Your task to perform on an android device: Show me popular videos on Youtube Image 0: 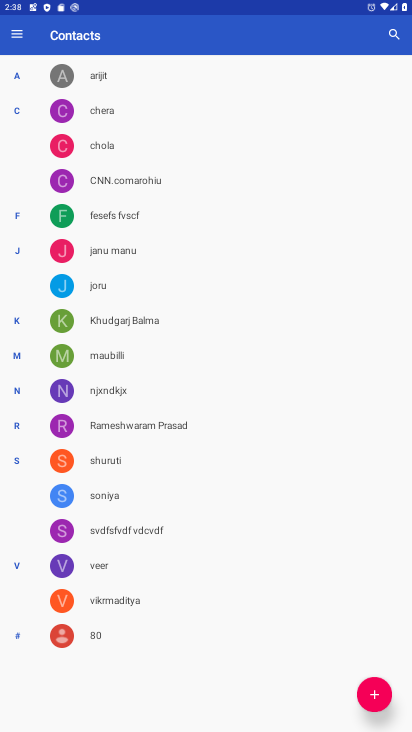
Step 0: press home button
Your task to perform on an android device: Show me popular videos on Youtube Image 1: 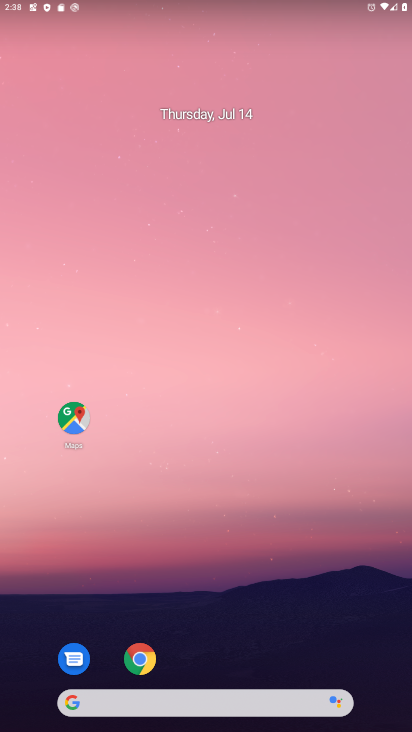
Step 1: drag from (317, 657) to (408, 437)
Your task to perform on an android device: Show me popular videos on Youtube Image 2: 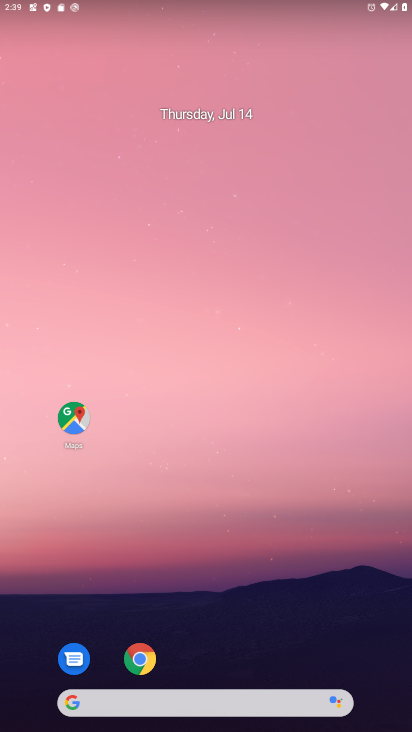
Step 2: drag from (250, 635) to (159, 4)
Your task to perform on an android device: Show me popular videos on Youtube Image 3: 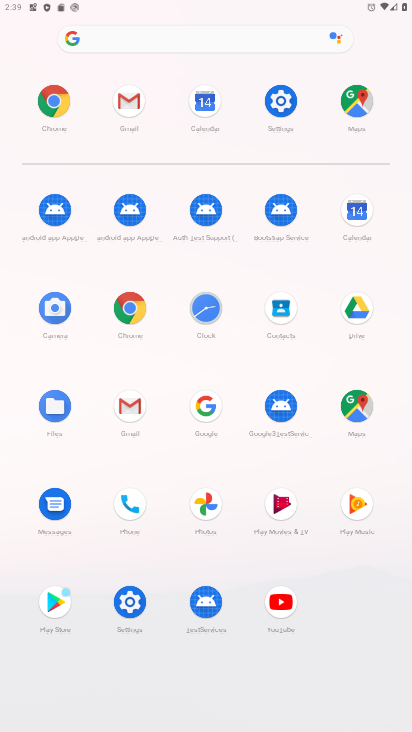
Step 3: click (281, 616)
Your task to perform on an android device: Show me popular videos on Youtube Image 4: 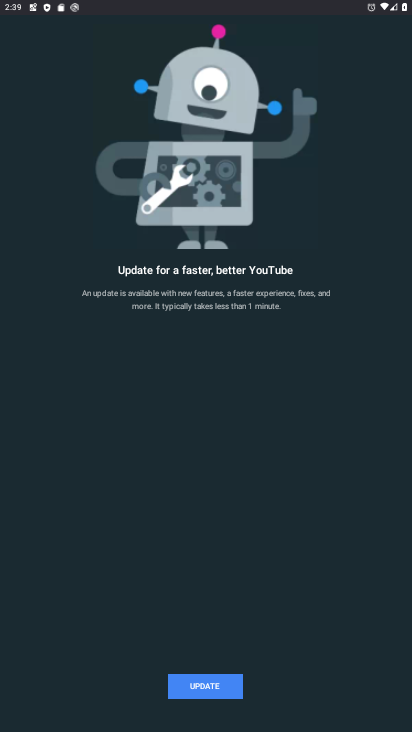
Step 4: click (211, 698)
Your task to perform on an android device: Show me popular videos on Youtube Image 5: 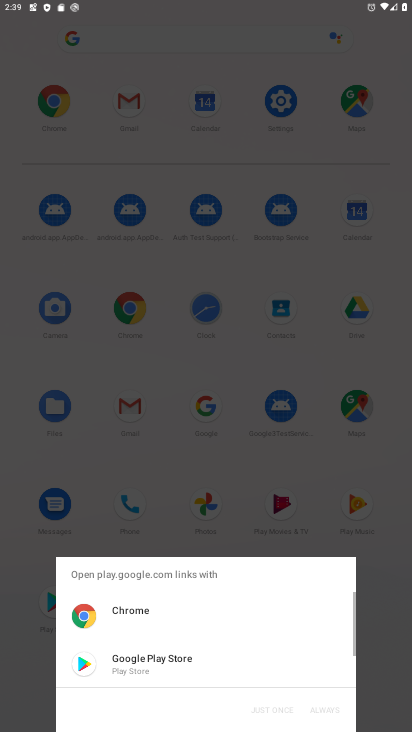
Step 5: click (118, 665)
Your task to perform on an android device: Show me popular videos on Youtube Image 6: 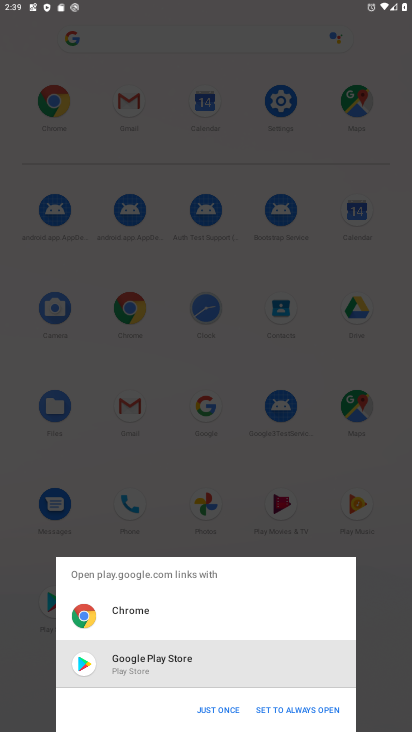
Step 6: click (212, 714)
Your task to perform on an android device: Show me popular videos on Youtube Image 7: 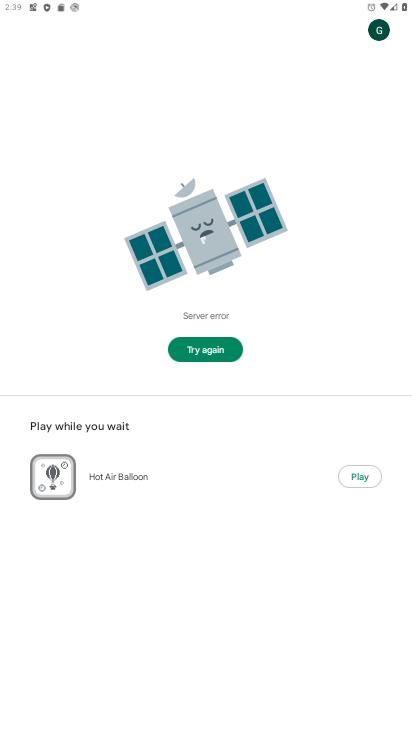
Step 7: click (205, 349)
Your task to perform on an android device: Show me popular videos on Youtube Image 8: 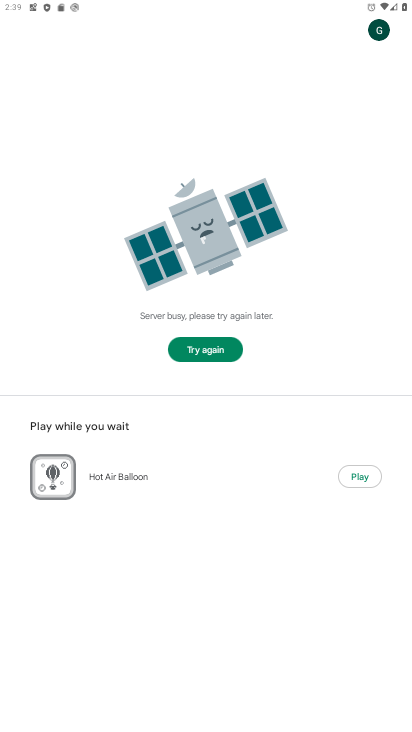
Step 8: click (205, 349)
Your task to perform on an android device: Show me popular videos on Youtube Image 9: 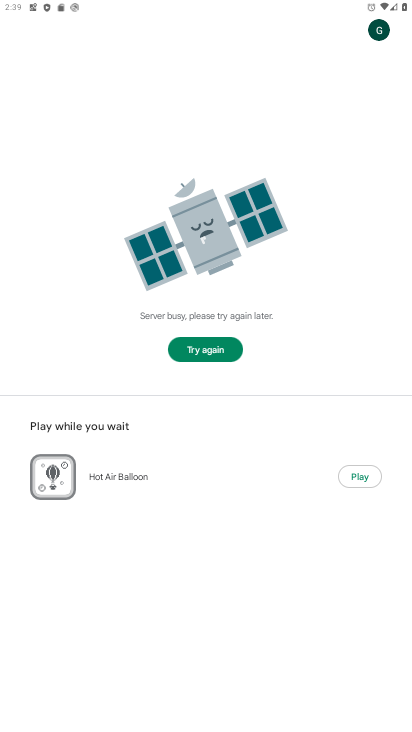
Step 9: task complete